Your task to perform on an android device: Open Maps and search for coffee Image 0: 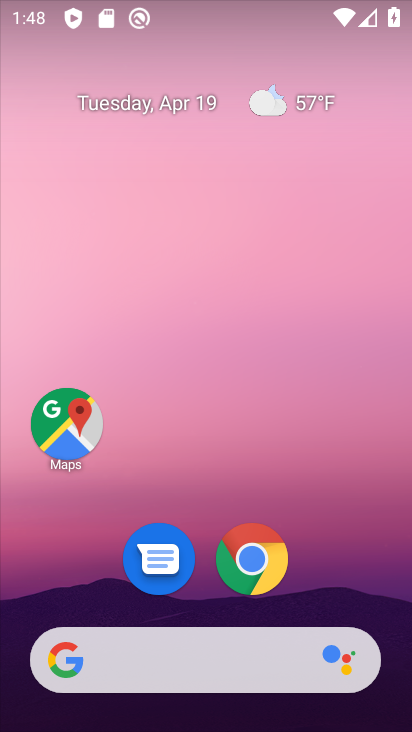
Step 0: click (67, 416)
Your task to perform on an android device: Open Maps and search for coffee Image 1: 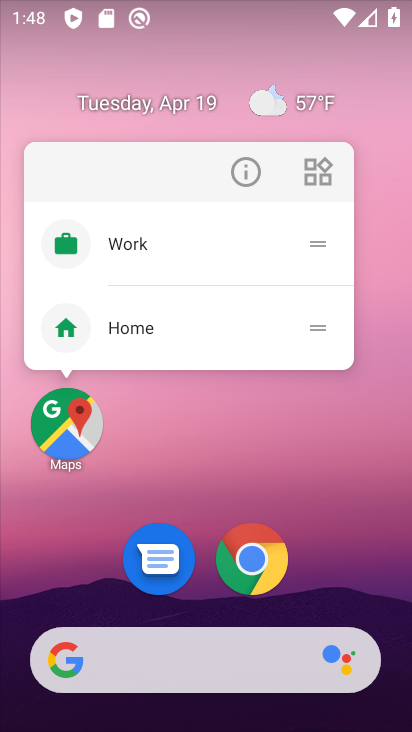
Step 1: click (66, 420)
Your task to perform on an android device: Open Maps and search for coffee Image 2: 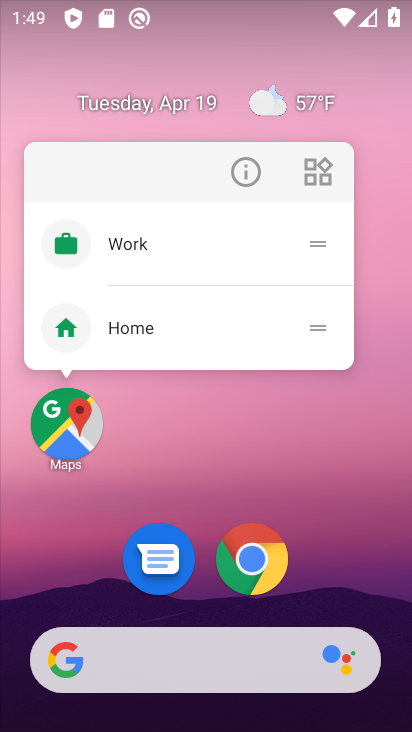
Step 2: click (193, 434)
Your task to perform on an android device: Open Maps and search for coffee Image 3: 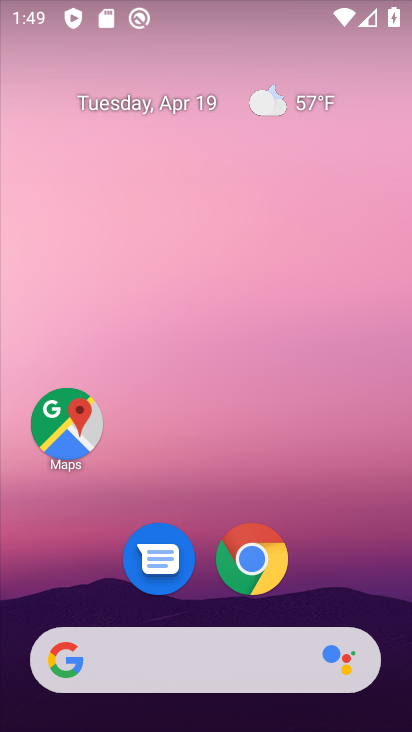
Step 3: click (66, 418)
Your task to perform on an android device: Open Maps and search for coffee Image 4: 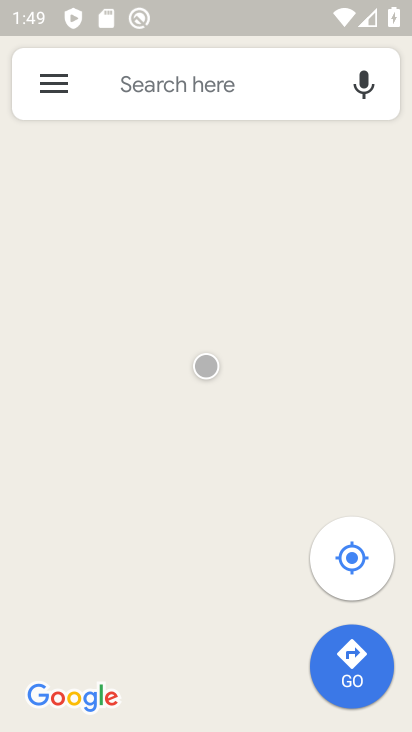
Step 4: click (153, 87)
Your task to perform on an android device: Open Maps and search for coffee Image 5: 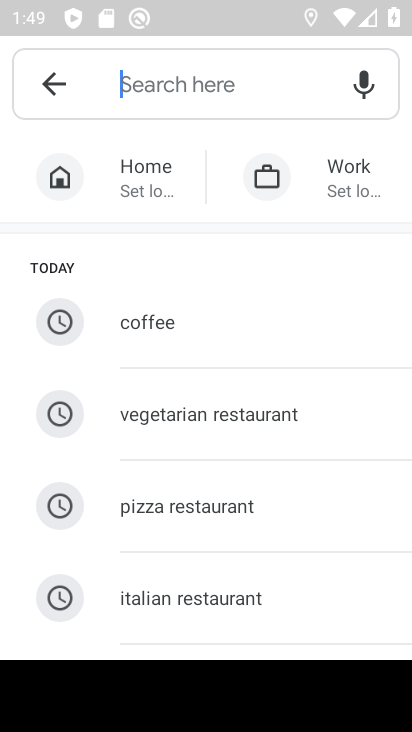
Step 5: click (185, 324)
Your task to perform on an android device: Open Maps and search for coffee Image 6: 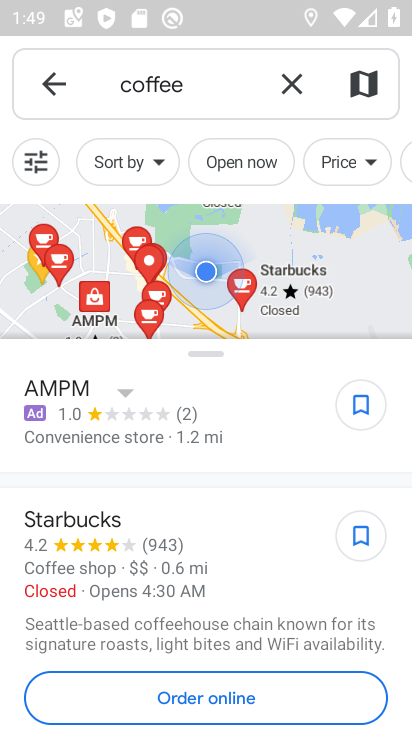
Step 6: task complete